Your task to perform on an android device: change timer sound Image 0: 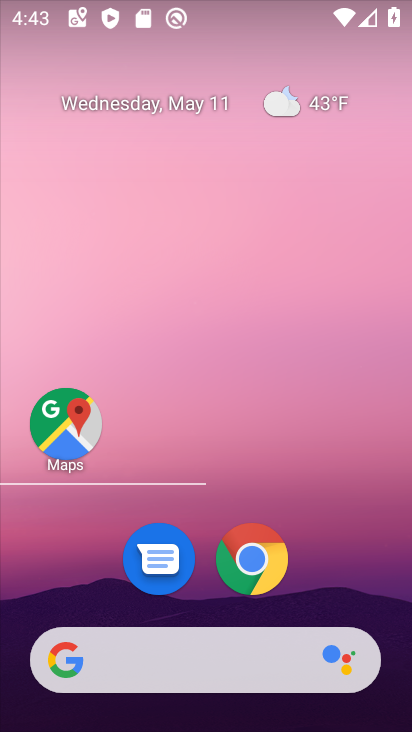
Step 0: click (289, 217)
Your task to perform on an android device: change timer sound Image 1: 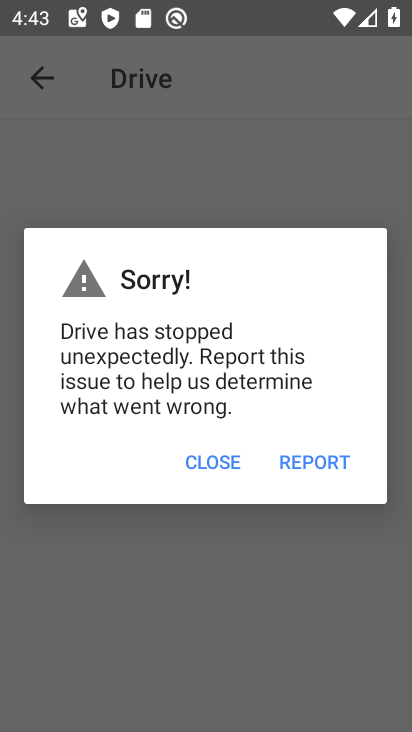
Step 1: press home button
Your task to perform on an android device: change timer sound Image 2: 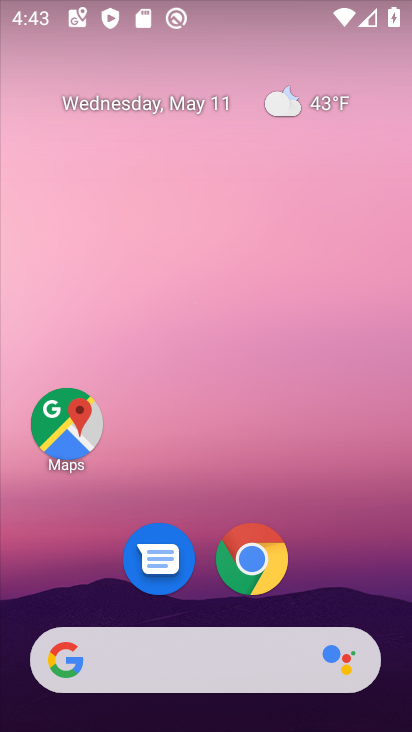
Step 2: click (248, 252)
Your task to perform on an android device: change timer sound Image 3: 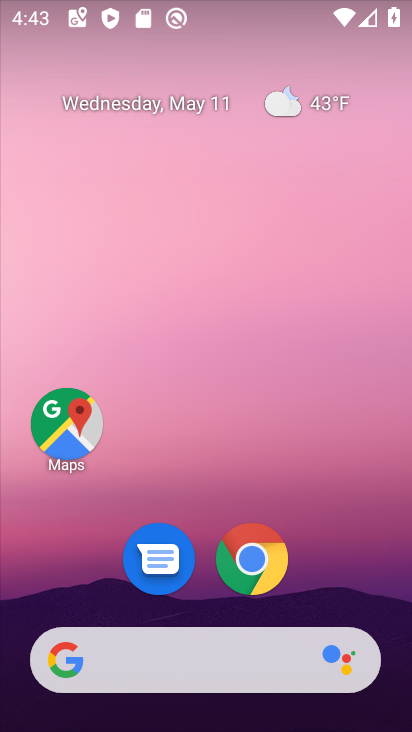
Step 3: drag from (311, 609) to (294, 128)
Your task to perform on an android device: change timer sound Image 4: 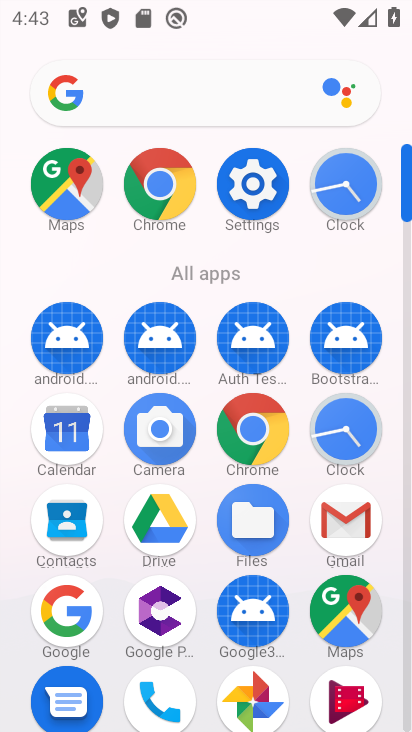
Step 4: click (254, 183)
Your task to perform on an android device: change timer sound Image 5: 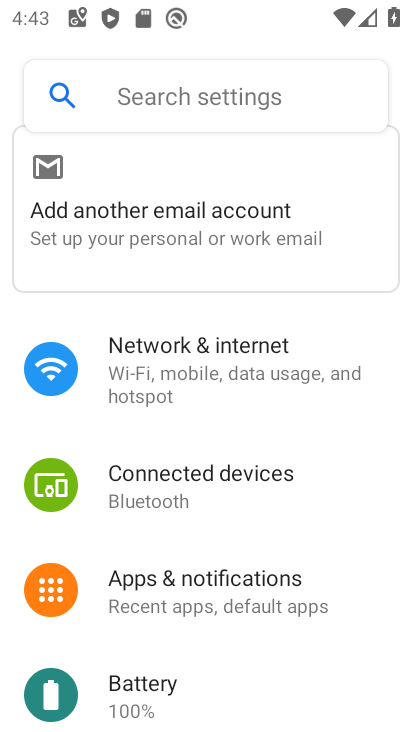
Step 5: press home button
Your task to perform on an android device: change timer sound Image 6: 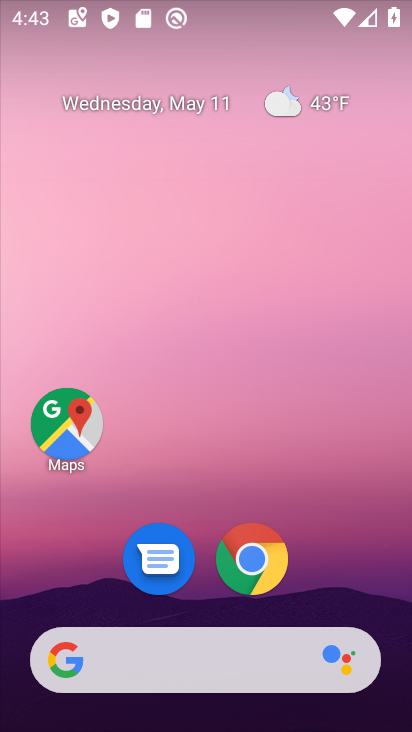
Step 6: click (255, 250)
Your task to perform on an android device: change timer sound Image 7: 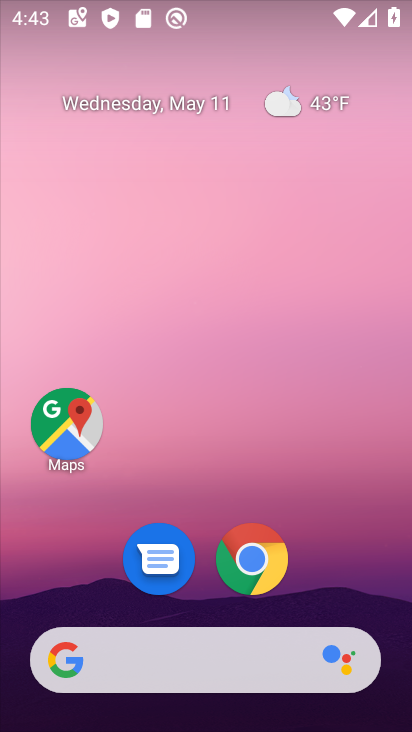
Step 7: drag from (302, 512) to (286, 213)
Your task to perform on an android device: change timer sound Image 8: 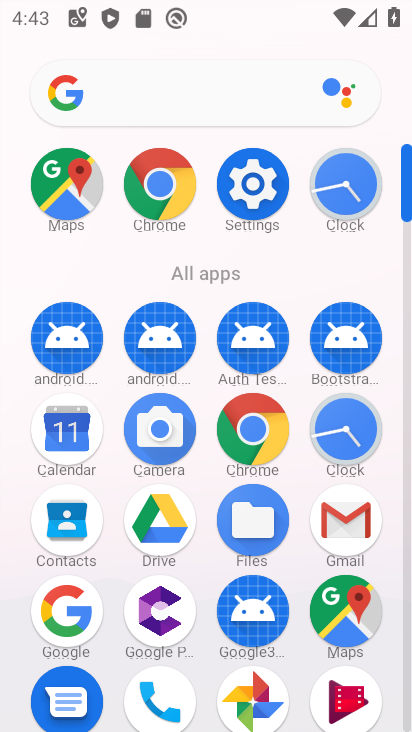
Step 8: click (329, 441)
Your task to perform on an android device: change timer sound Image 9: 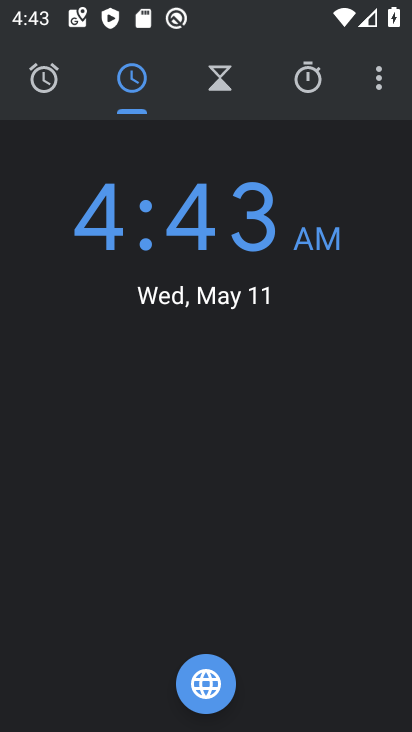
Step 9: click (379, 77)
Your task to perform on an android device: change timer sound Image 10: 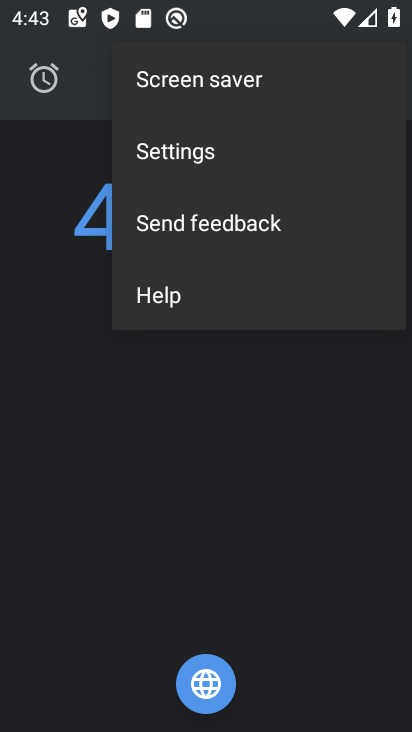
Step 10: click (214, 155)
Your task to perform on an android device: change timer sound Image 11: 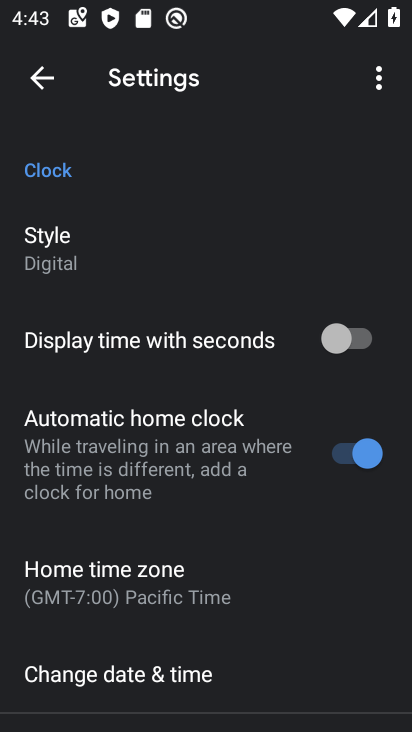
Step 11: drag from (181, 612) to (159, 324)
Your task to perform on an android device: change timer sound Image 12: 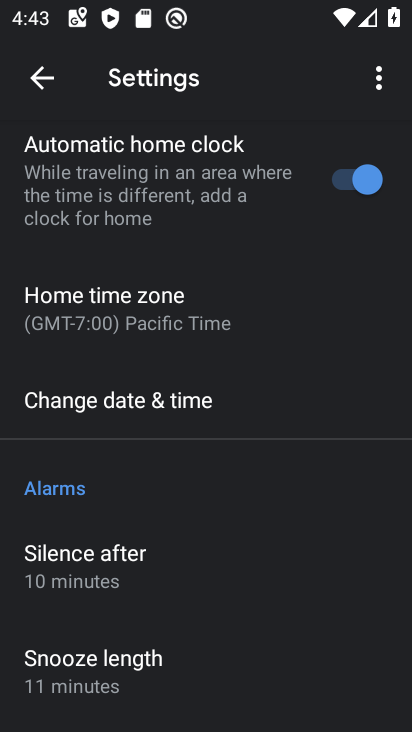
Step 12: drag from (133, 594) to (146, 247)
Your task to perform on an android device: change timer sound Image 13: 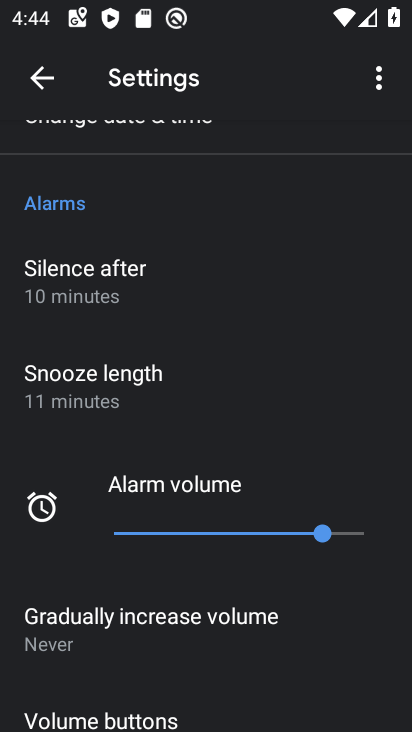
Step 13: drag from (139, 592) to (151, 238)
Your task to perform on an android device: change timer sound Image 14: 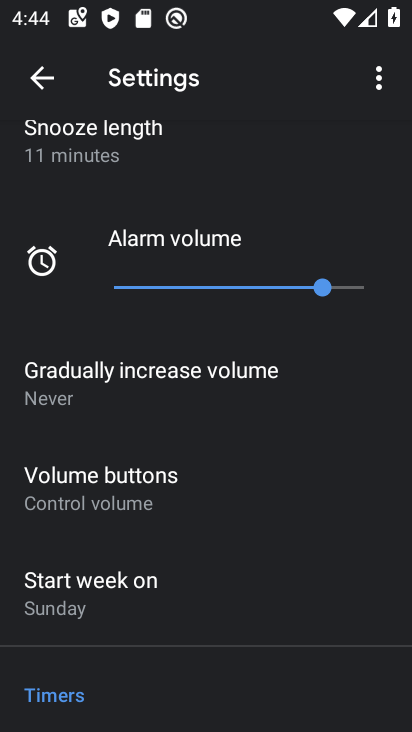
Step 14: drag from (115, 620) to (134, 303)
Your task to perform on an android device: change timer sound Image 15: 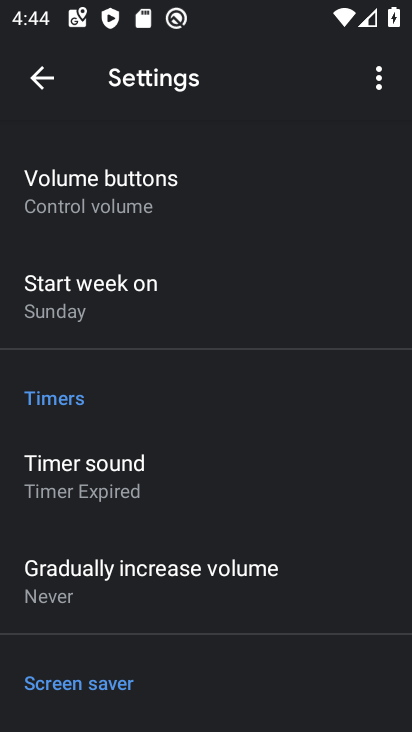
Step 15: click (65, 484)
Your task to perform on an android device: change timer sound Image 16: 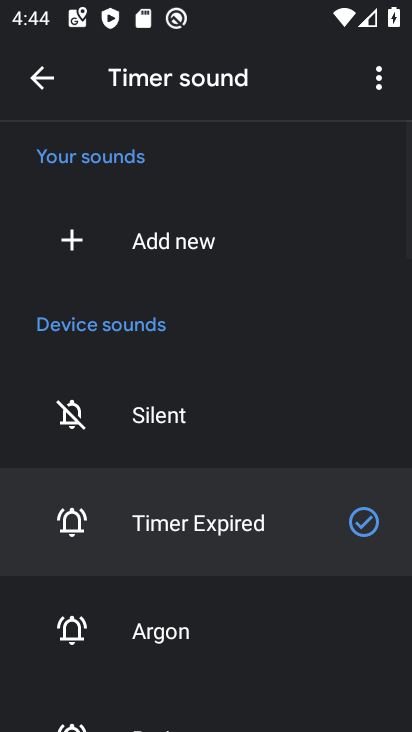
Step 16: click (71, 632)
Your task to perform on an android device: change timer sound Image 17: 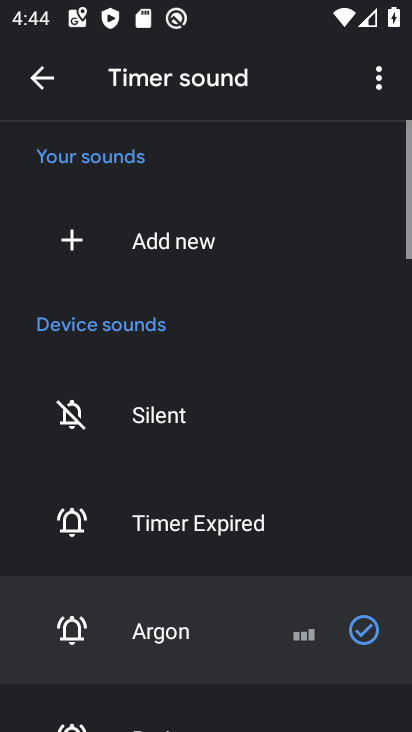
Step 17: task complete